Your task to perform on an android device: Go to Reddit.com Image 0: 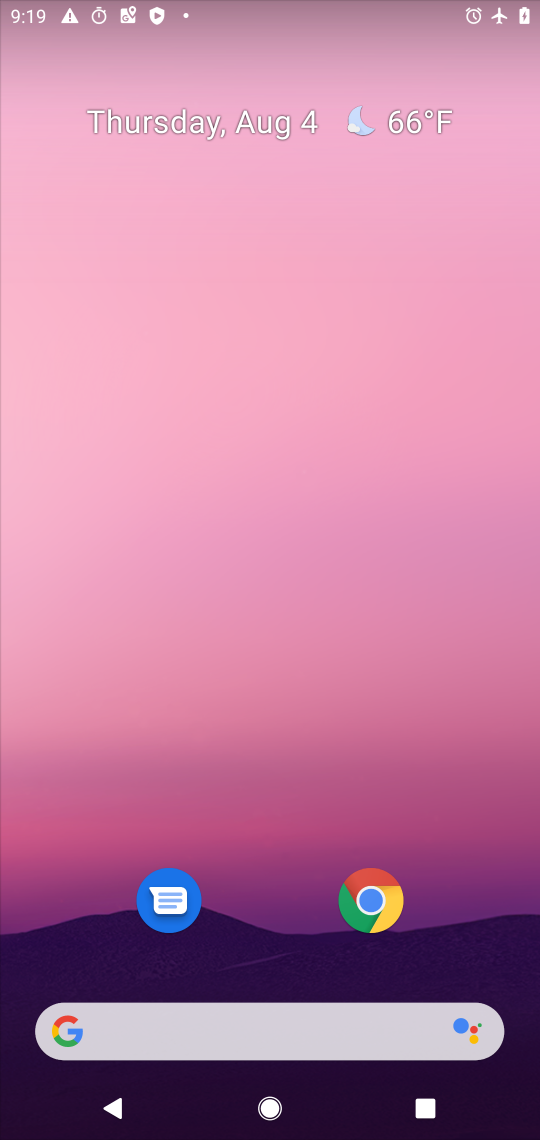
Step 0: click (370, 897)
Your task to perform on an android device: Go to Reddit.com Image 1: 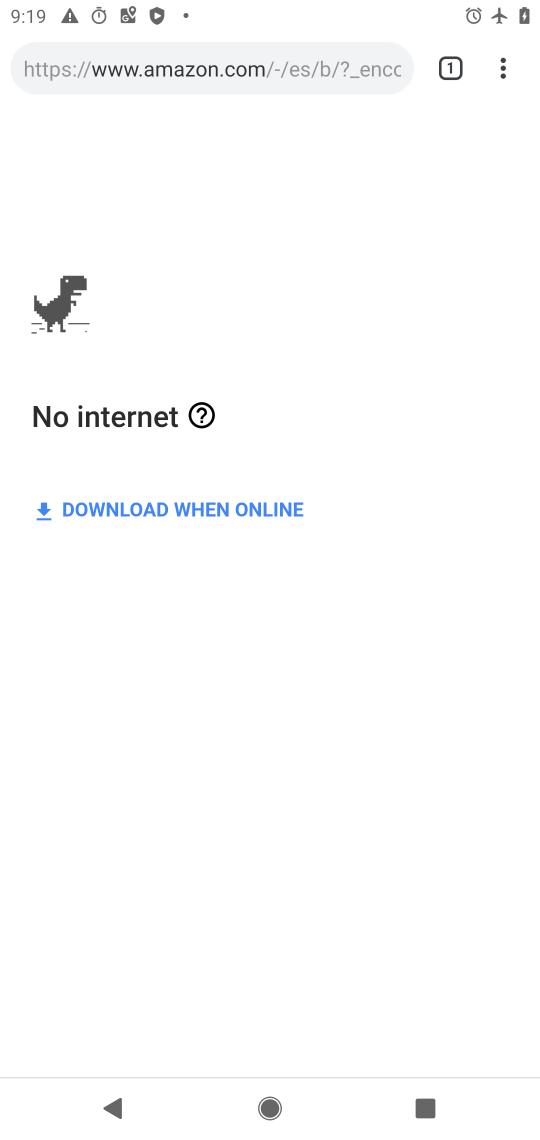
Step 1: click (237, 68)
Your task to perform on an android device: Go to Reddit.com Image 2: 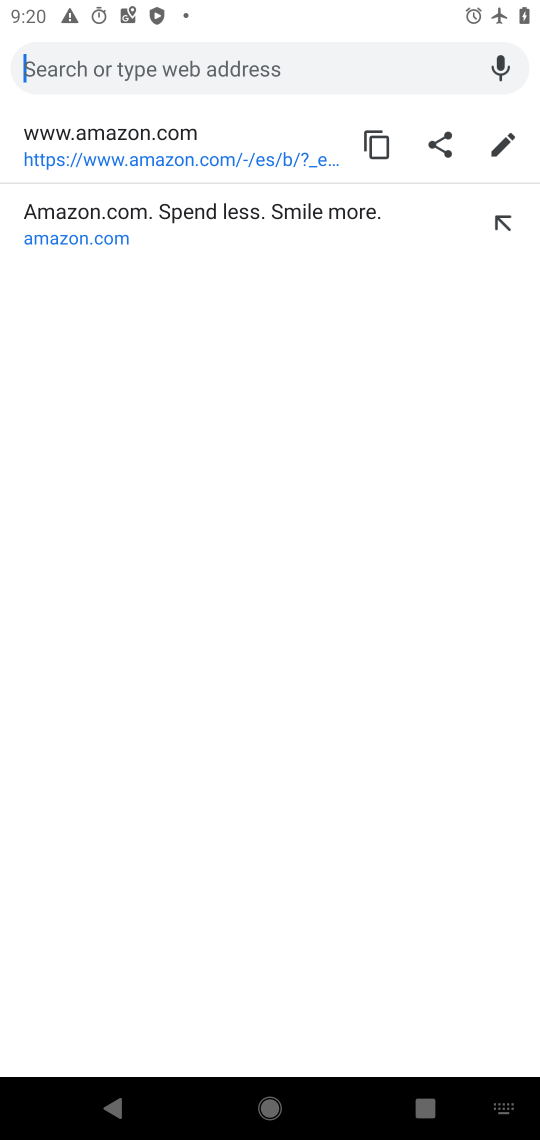
Step 2: type "Reddit.com"
Your task to perform on an android device: Go to Reddit.com Image 3: 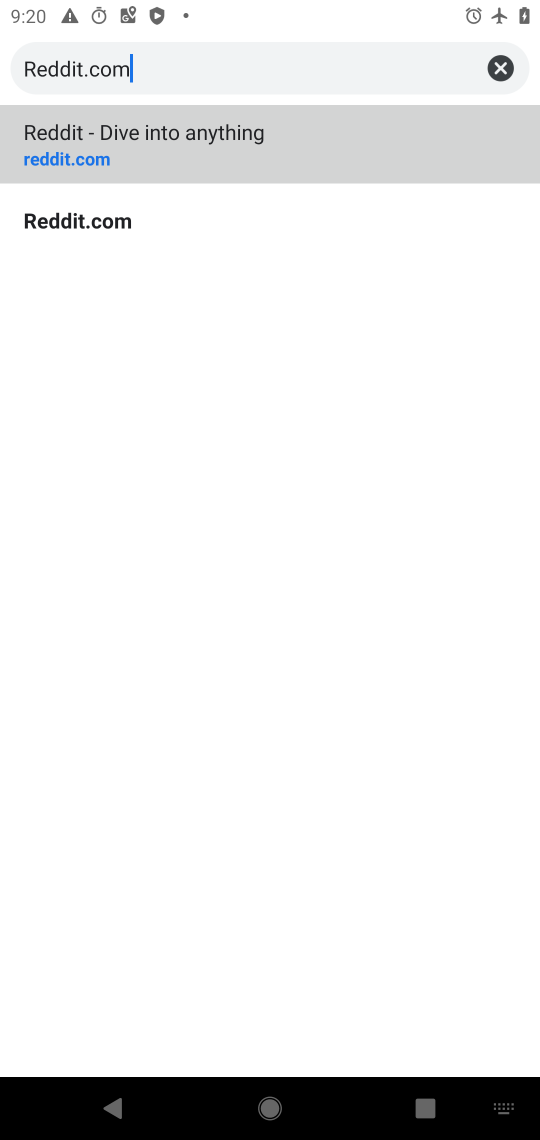
Step 3: click (97, 223)
Your task to perform on an android device: Go to Reddit.com Image 4: 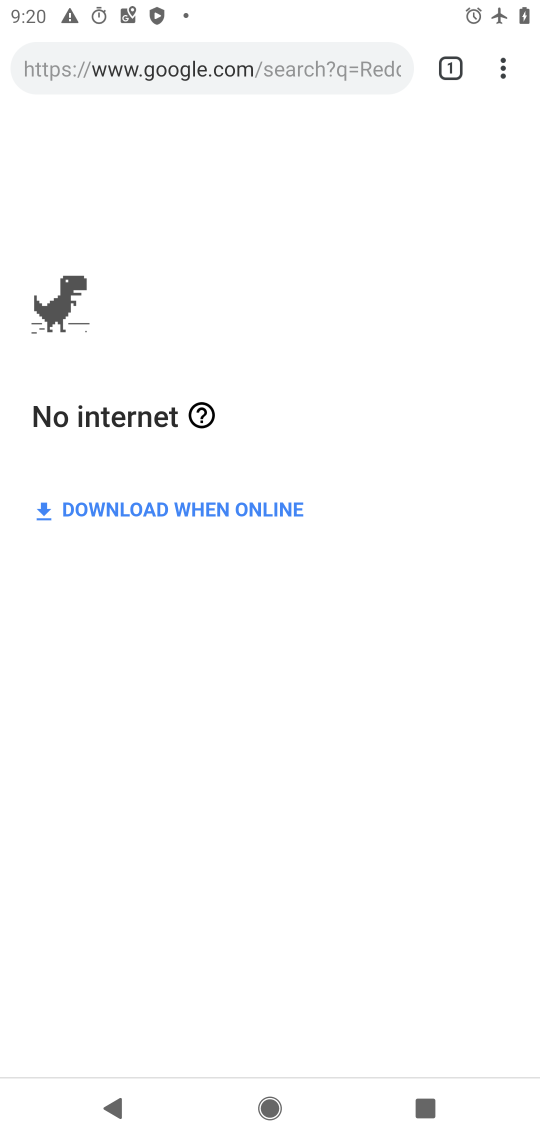
Step 4: task complete